Your task to perform on an android device: Open CNN.com Image 0: 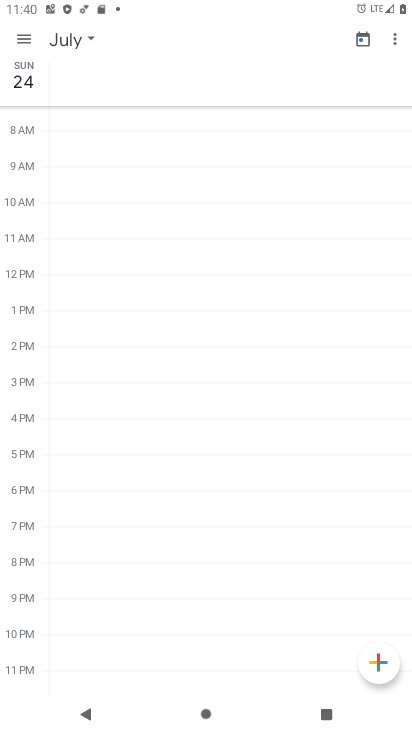
Step 0: press home button
Your task to perform on an android device: Open CNN.com Image 1: 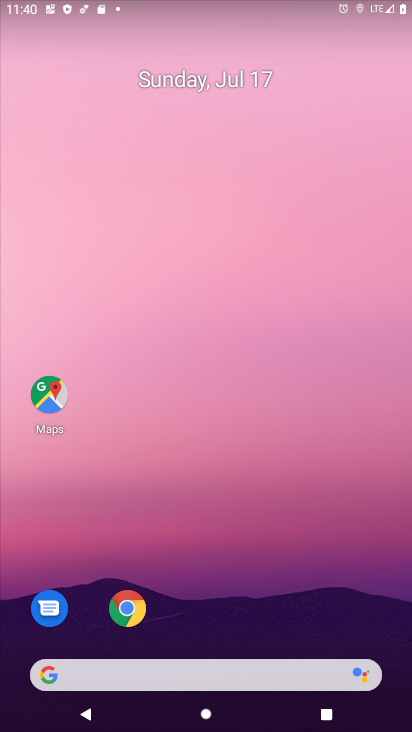
Step 1: click (131, 604)
Your task to perform on an android device: Open CNN.com Image 2: 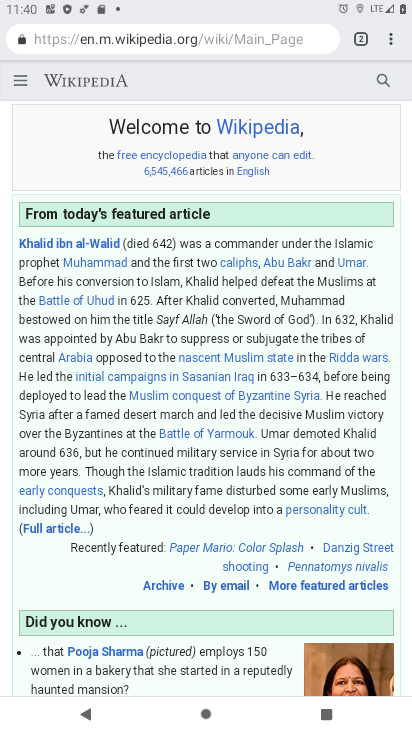
Step 2: click (363, 39)
Your task to perform on an android device: Open CNN.com Image 3: 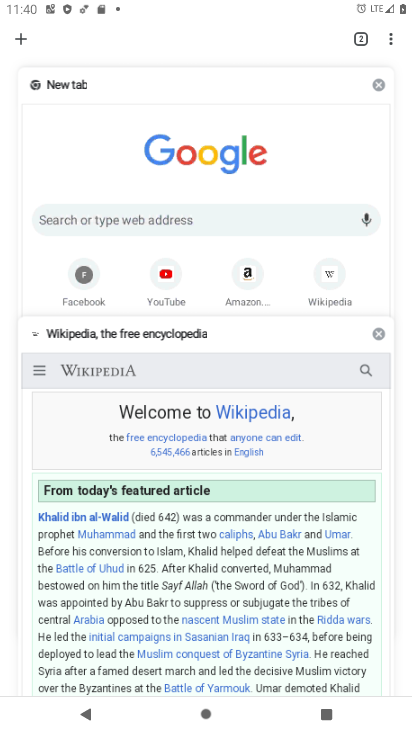
Step 3: click (173, 181)
Your task to perform on an android device: Open CNN.com Image 4: 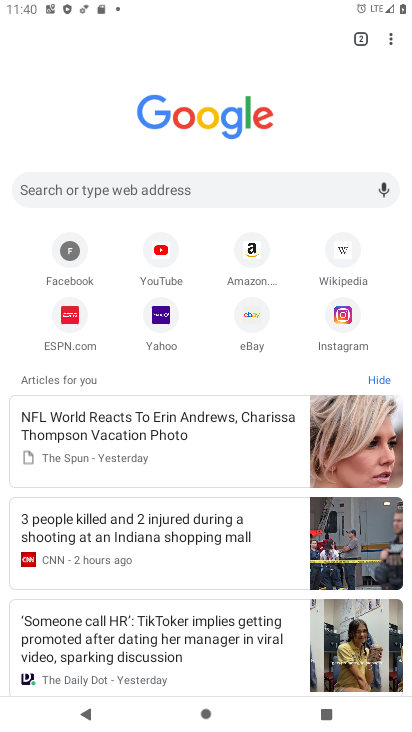
Step 4: click (171, 186)
Your task to perform on an android device: Open CNN.com Image 5: 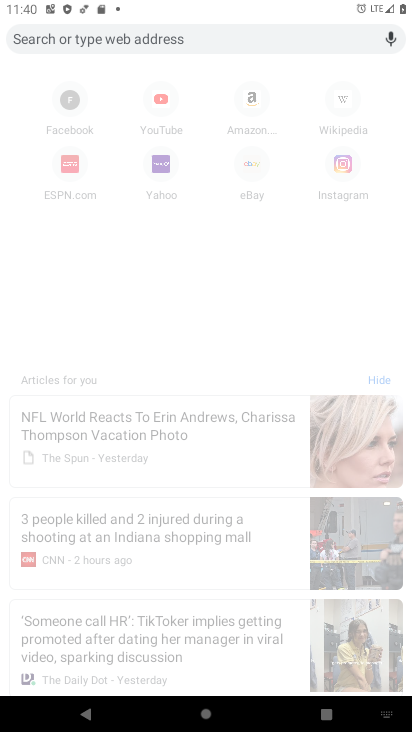
Step 5: type "cnn"
Your task to perform on an android device: Open CNN.com Image 6: 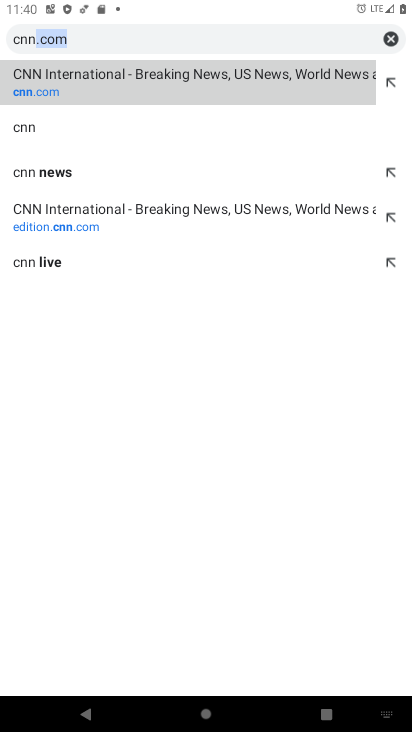
Step 6: click (94, 201)
Your task to perform on an android device: Open CNN.com Image 7: 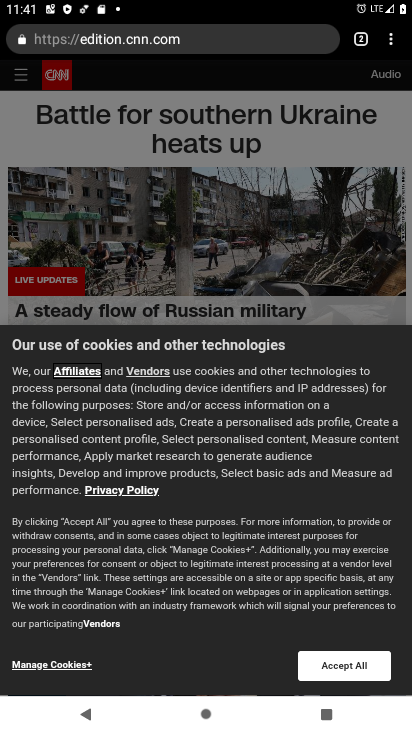
Step 7: task complete